Your task to perform on an android device: Go to accessibility settings Image 0: 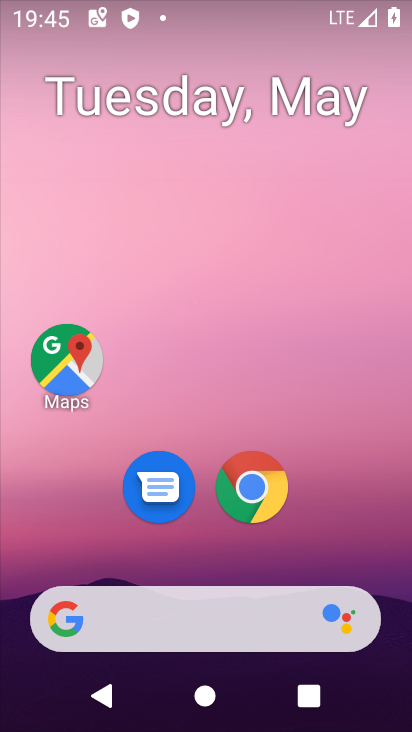
Step 0: drag from (336, 513) to (214, 128)
Your task to perform on an android device: Go to accessibility settings Image 1: 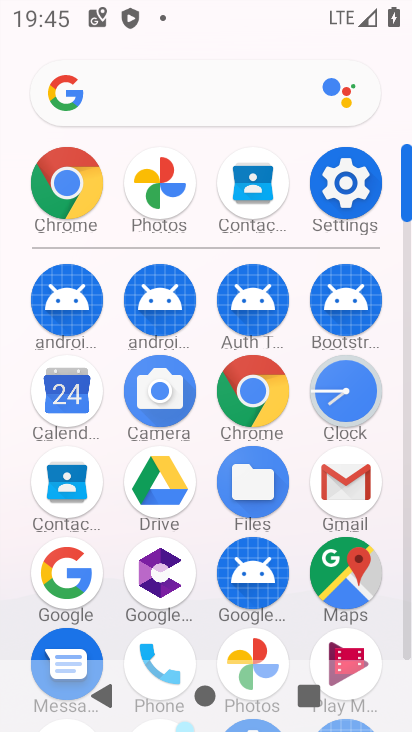
Step 1: click (346, 188)
Your task to perform on an android device: Go to accessibility settings Image 2: 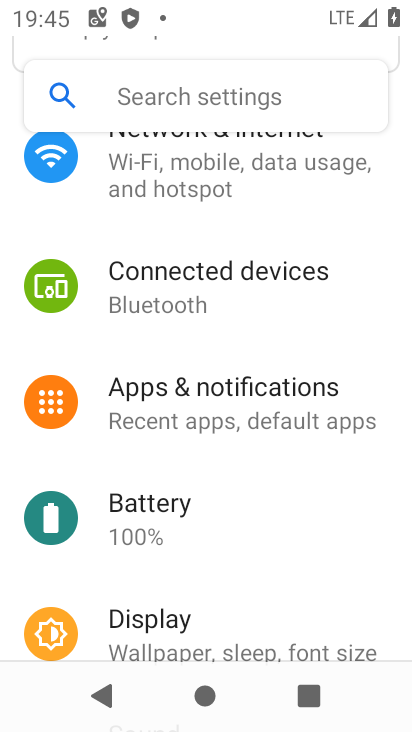
Step 2: drag from (256, 531) to (182, 196)
Your task to perform on an android device: Go to accessibility settings Image 3: 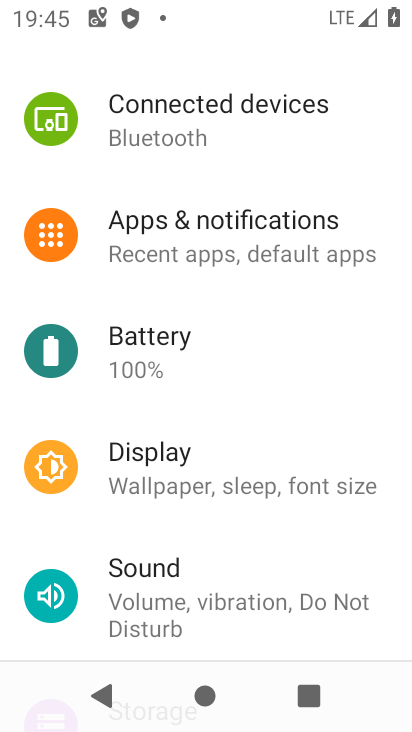
Step 3: drag from (255, 538) to (187, 261)
Your task to perform on an android device: Go to accessibility settings Image 4: 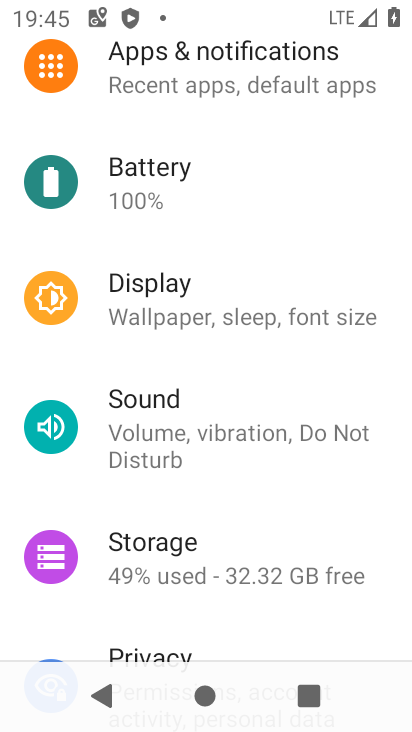
Step 4: drag from (240, 482) to (202, 188)
Your task to perform on an android device: Go to accessibility settings Image 5: 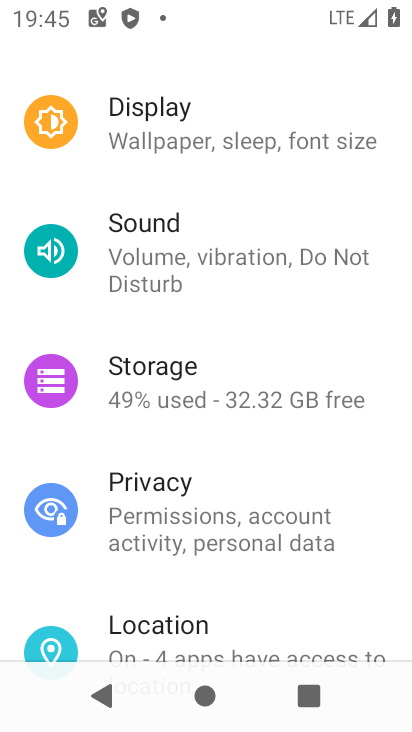
Step 5: drag from (230, 439) to (185, 95)
Your task to perform on an android device: Go to accessibility settings Image 6: 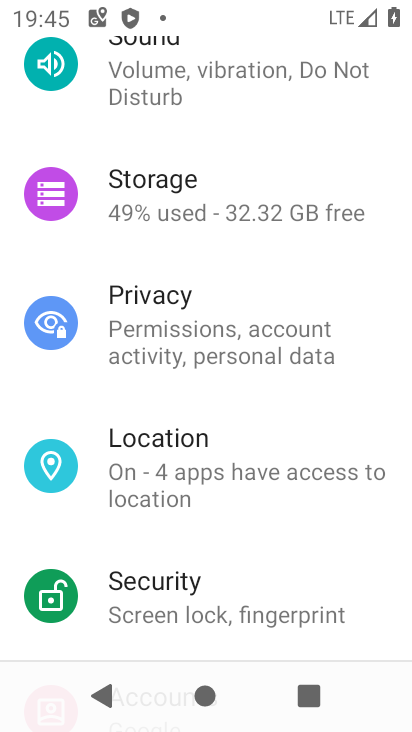
Step 6: drag from (231, 406) to (180, 145)
Your task to perform on an android device: Go to accessibility settings Image 7: 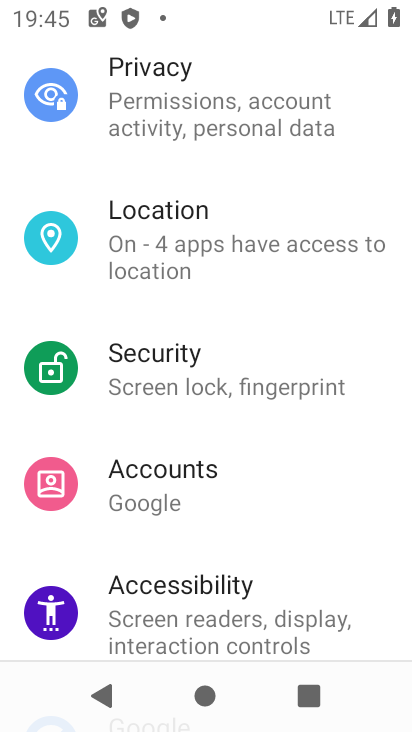
Step 7: click (187, 582)
Your task to perform on an android device: Go to accessibility settings Image 8: 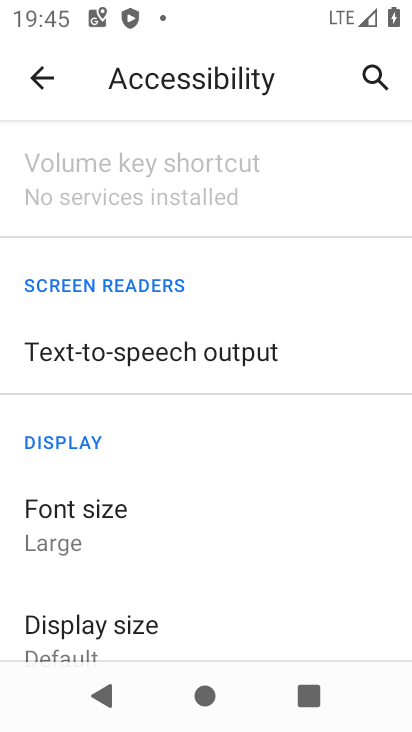
Step 8: task complete